Your task to perform on an android device: Go to display settings Image 0: 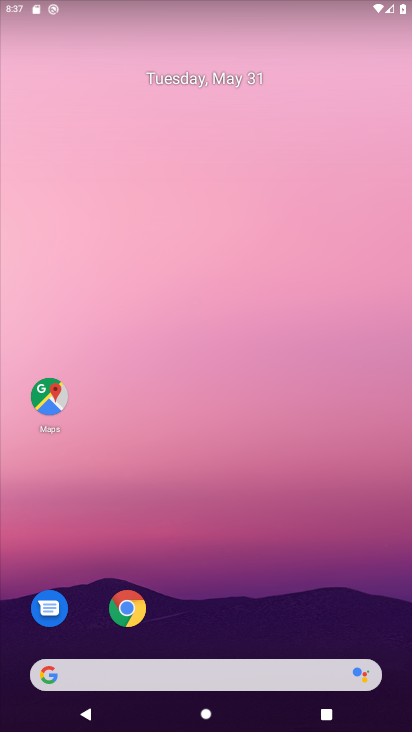
Step 0: drag from (294, 621) to (215, 25)
Your task to perform on an android device: Go to display settings Image 1: 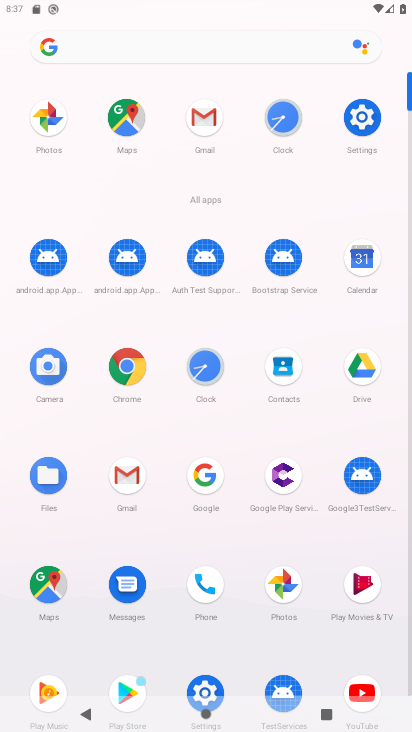
Step 1: click (364, 117)
Your task to perform on an android device: Go to display settings Image 2: 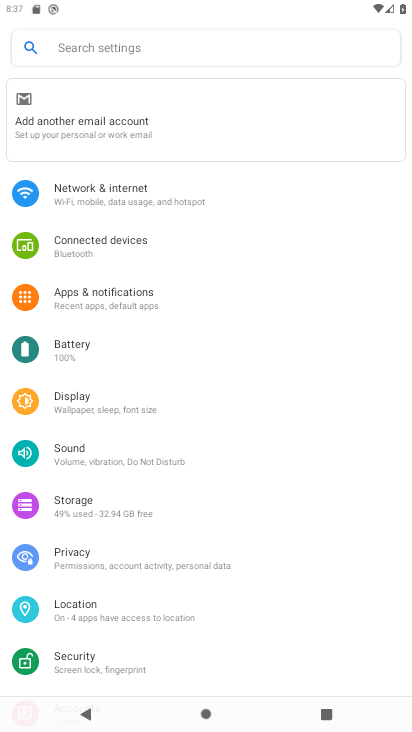
Step 2: click (86, 407)
Your task to perform on an android device: Go to display settings Image 3: 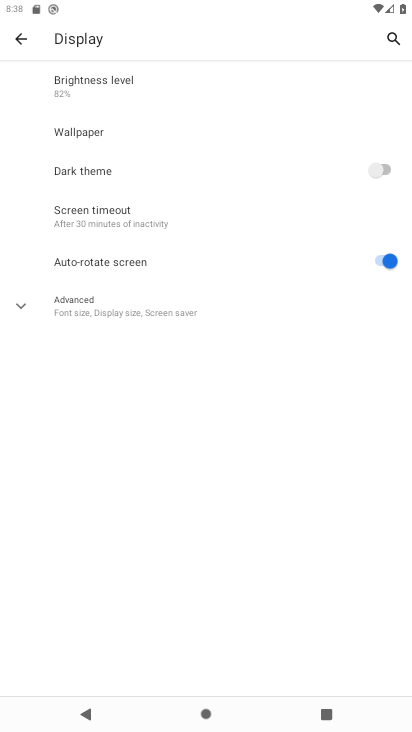
Step 3: task complete